Your task to perform on an android device: Search for the best coffee tables on Crate & Barrel Image 0: 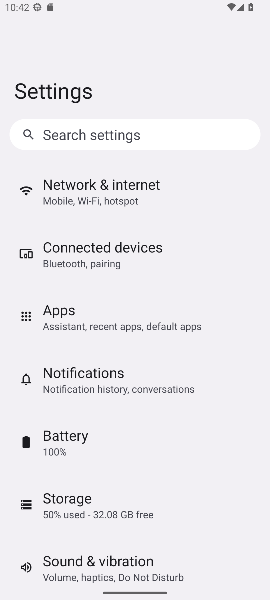
Step 0: press home button
Your task to perform on an android device: Search for the best coffee tables on Crate & Barrel Image 1: 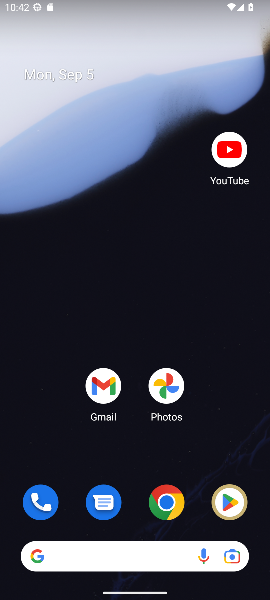
Step 1: drag from (261, 523) to (171, 13)
Your task to perform on an android device: Search for the best coffee tables on Crate & Barrel Image 2: 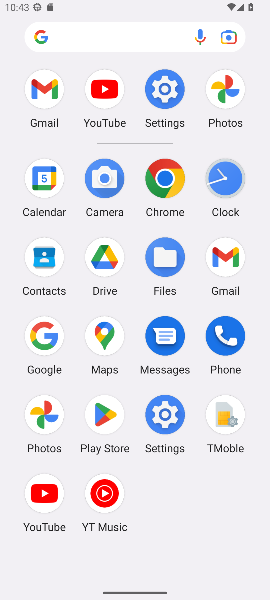
Step 2: click (57, 332)
Your task to perform on an android device: Search for the best coffee tables on Crate & Barrel Image 3: 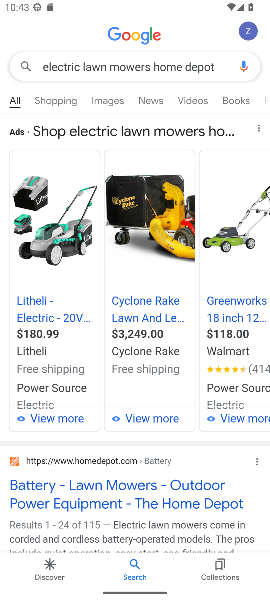
Step 3: press back button
Your task to perform on an android device: Search for the best coffee tables on Crate & Barrel Image 4: 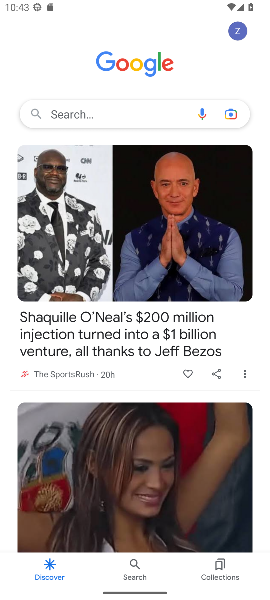
Step 4: click (78, 113)
Your task to perform on an android device: Search for the best coffee tables on Crate & Barrel Image 5: 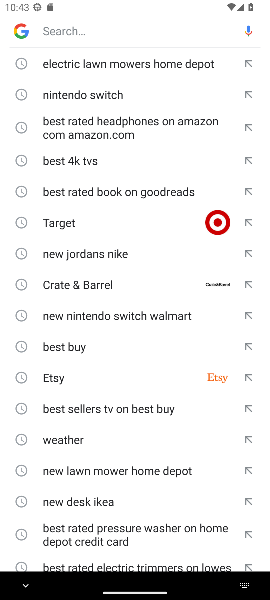
Step 5: type " best coffee tables on Crate & Barrel"
Your task to perform on an android device: Search for the best coffee tables on Crate & Barrel Image 6: 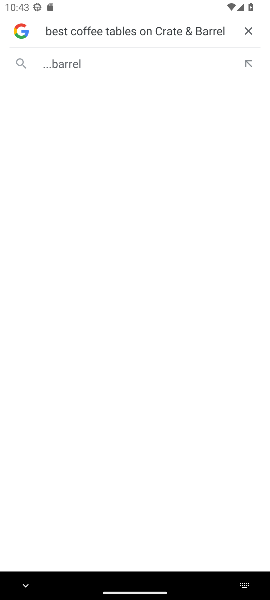
Step 6: click (79, 66)
Your task to perform on an android device: Search for the best coffee tables on Crate & Barrel Image 7: 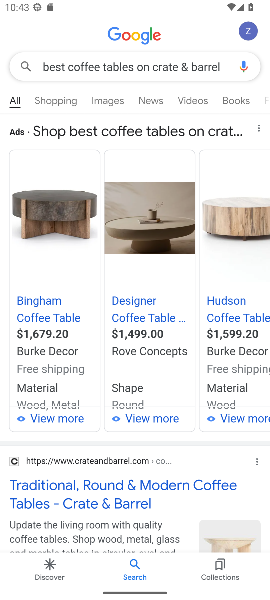
Step 7: task complete